Your task to perform on an android device: Show me popular videos on Youtube Image 0: 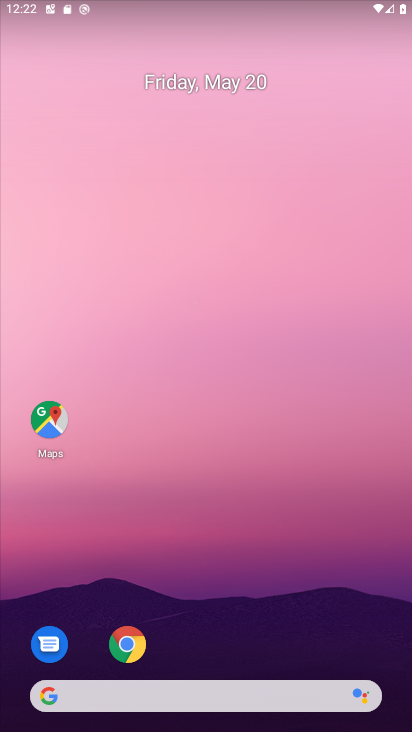
Step 0: drag from (230, 680) to (210, 384)
Your task to perform on an android device: Show me popular videos on Youtube Image 1: 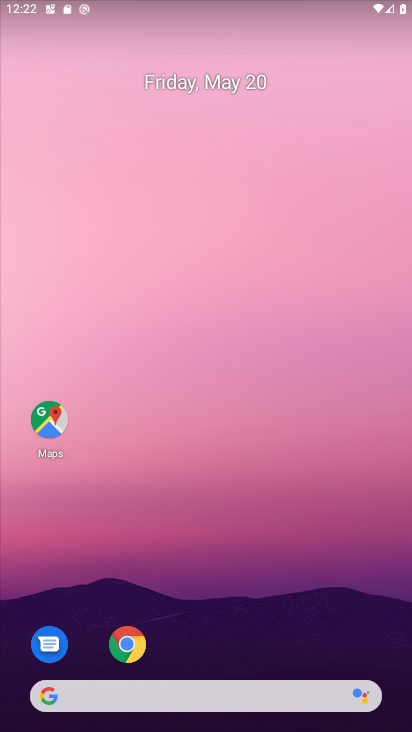
Step 1: drag from (228, 658) to (201, 236)
Your task to perform on an android device: Show me popular videos on Youtube Image 2: 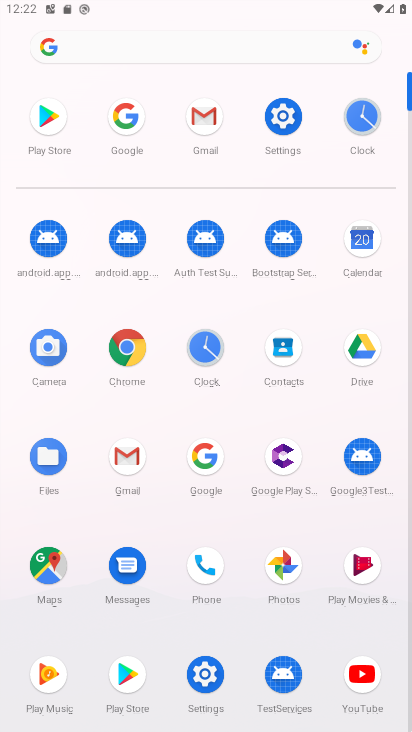
Step 2: click (362, 674)
Your task to perform on an android device: Show me popular videos on Youtube Image 3: 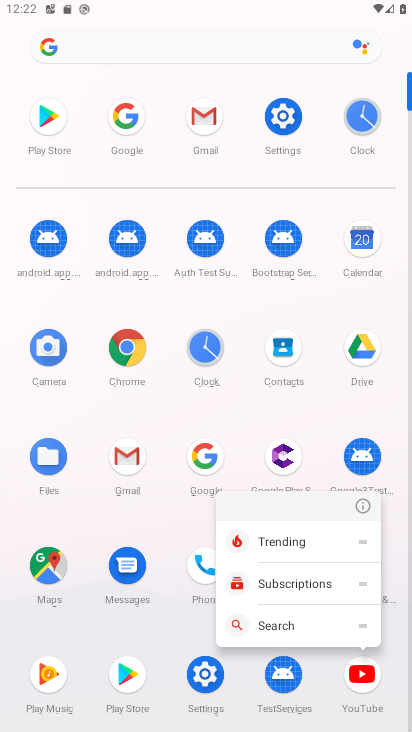
Step 3: click (356, 682)
Your task to perform on an android device: Show me popular videos on Youtube Image 4: 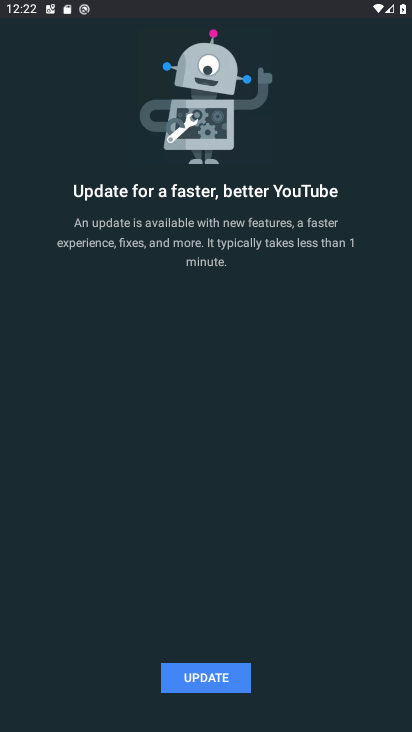
Step 4: click (233, 682)
Your task to perform on an android device: Show me popular videos on Youtube Image 5: 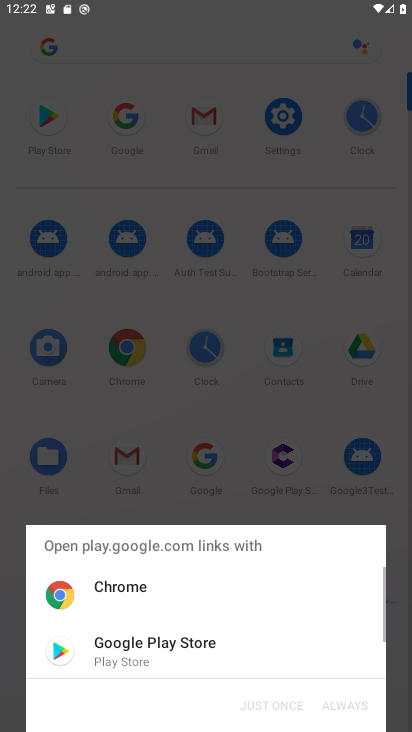
Step 5: click (220, 666)
Your task to perform on an android device: Show me popular videos on Youtube Image 6: 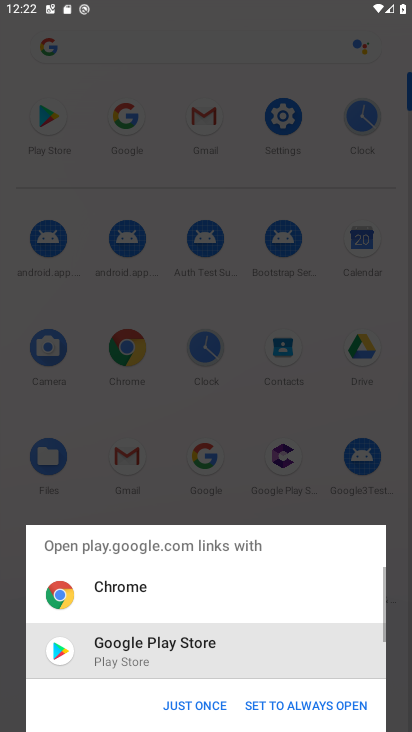
Step 6: click (333, 698)
Your task to perform on an android device: Show me popular videos on Youtube Image 7: 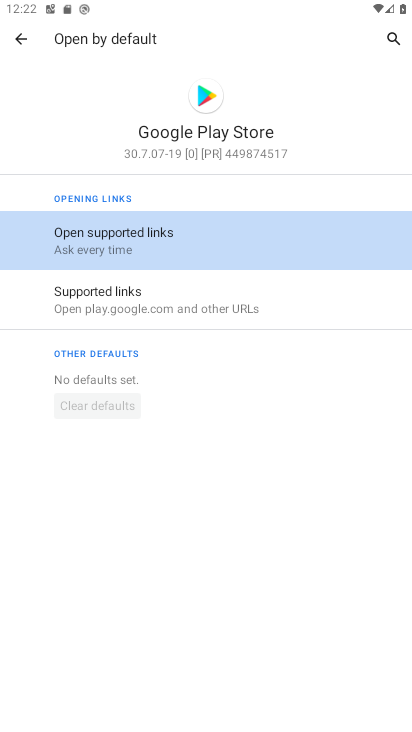
Step 7: click (210, 126)
Your task to perform on an android device: Show me popular videos on Youtube Image 8: 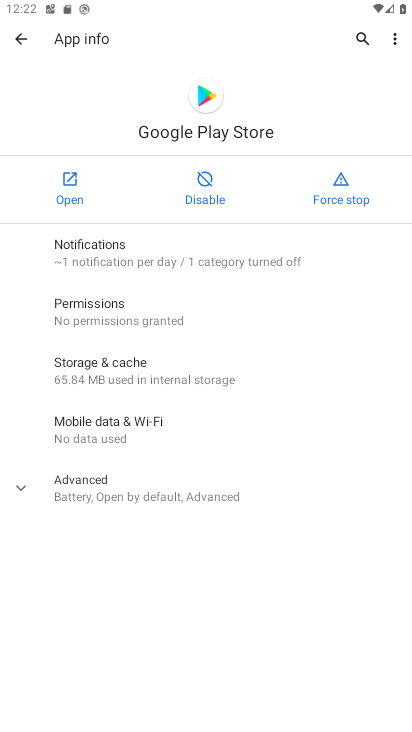
Step 8: click (69, 189)
Your task to perform on an android device: Show me popular videos on Youtube Image 9: 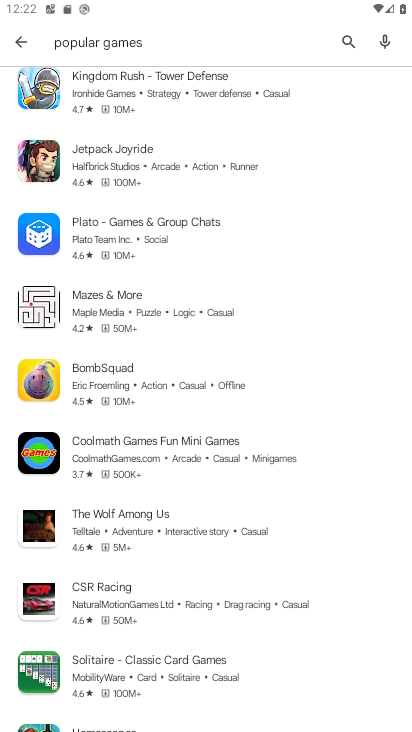
Step 9: click (348, 38)
Your task to perform on an android device: Show me popular videos on Youtube Image 10: 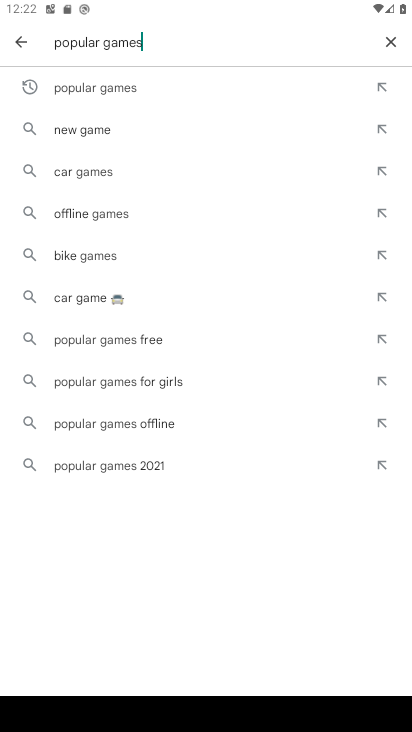
Step 10: click (389, 42)
Your task to perform on an android device: Show me popular videos on Youtube Image 11: 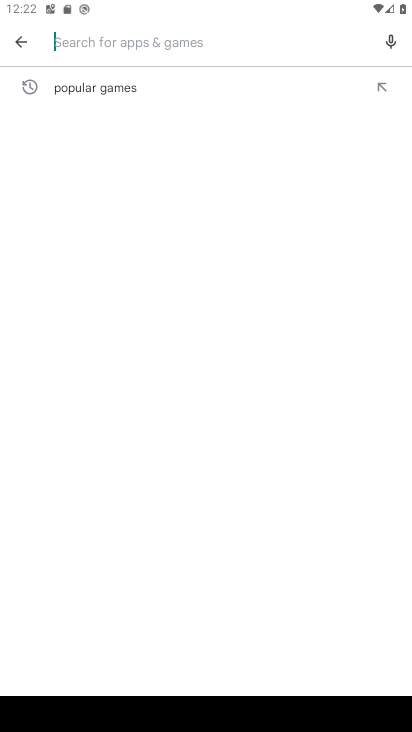
Step 11: type "youtube"
Your task to perform on an android device: Show me popular videos on Youtube Image 12: 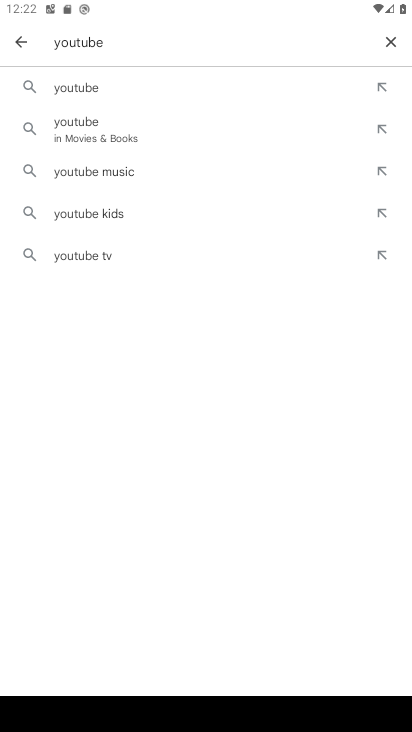
Step 12: click (85, 88)
Your task to perform on an android device: Show me popular videos on Youtube Image 13: 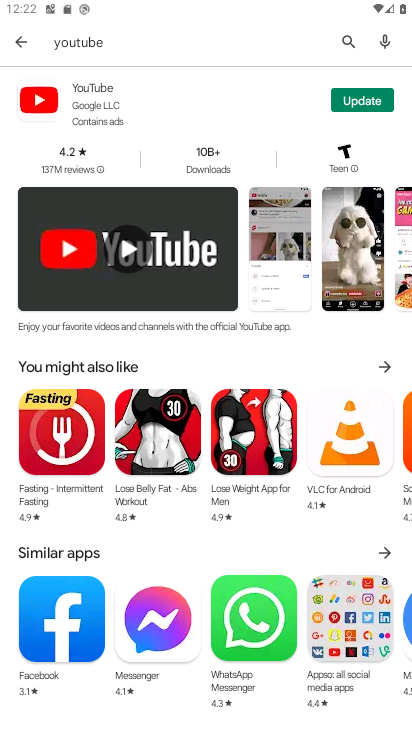
Step 13: click (367, 97)
Your task to perform on an android device: Show me popular videos on Youtube Image 14: 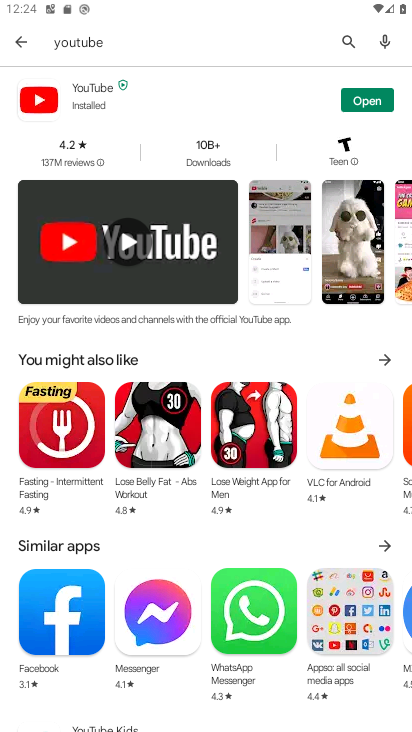
Step 14: click (362, 100)
Your task to perform on an android device: Show me popular videos on Youtube Image 15: 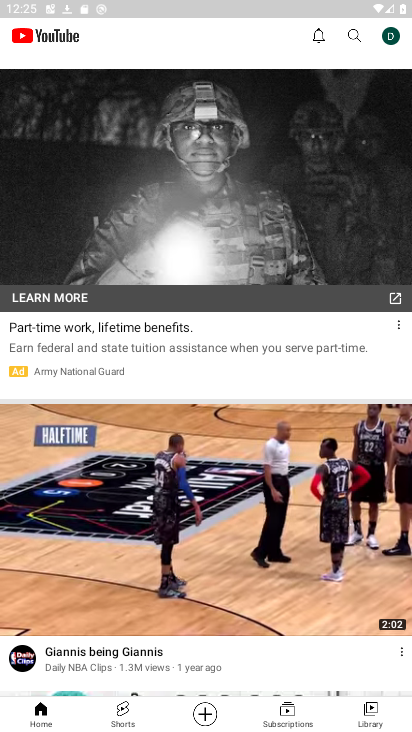
Step 15: task complete